Your task to perform on an android device: What's on my calendar tomorrow? Image 0: 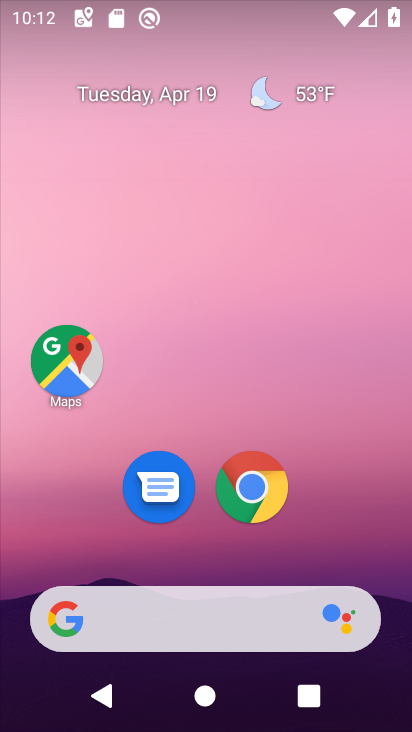
Step 0: drag from (315, 454) to (262, 46)
Your task to perform on an android device: What's on my calendar tomorrow? Image 1: 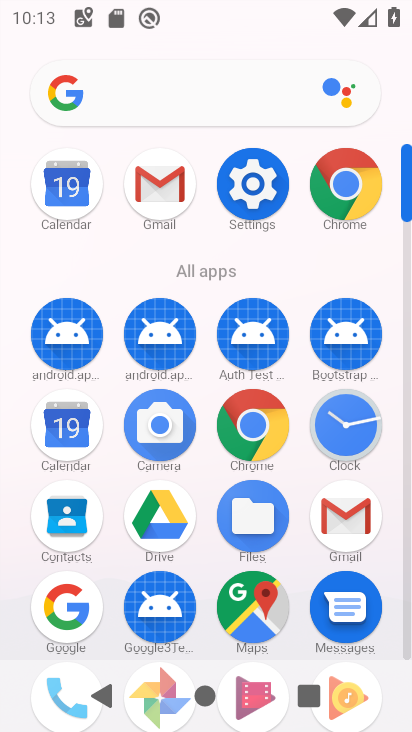
Step 1: drag from (0, 511) to (14, 165)
Your task to perform on an android device: What's on my calendar tomorrow? Image 2: 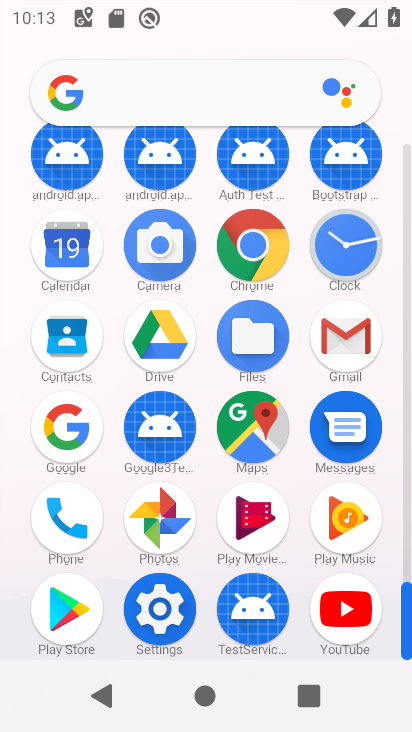
Step 2: click (64, 240)
Your task to perform on an android device: What's on my calendar tomorrow? Image 3: 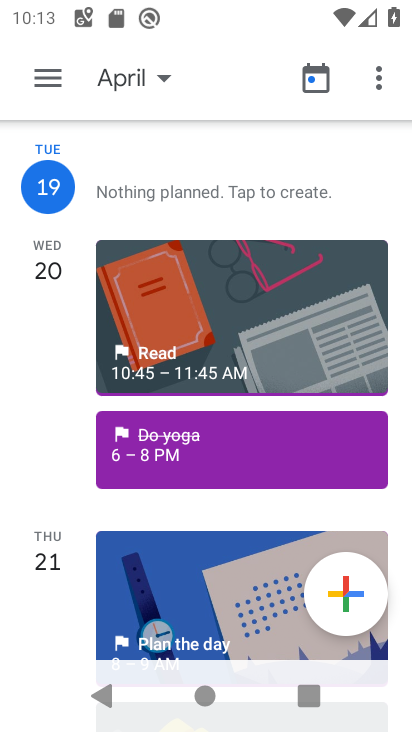
Step 3: click (45, 79)
Your task to perform on an android device: What's on my calendar tomorrow? Image 4: 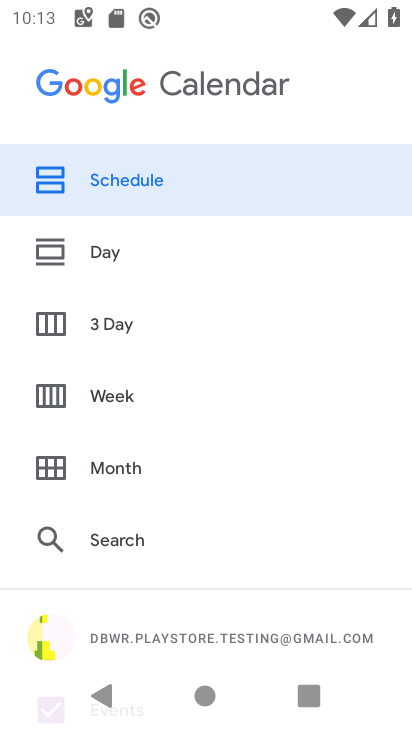
Step 4: click (109, 246)
Your task to perform on an android device: What's on my calendar tomorrow? Image 5: 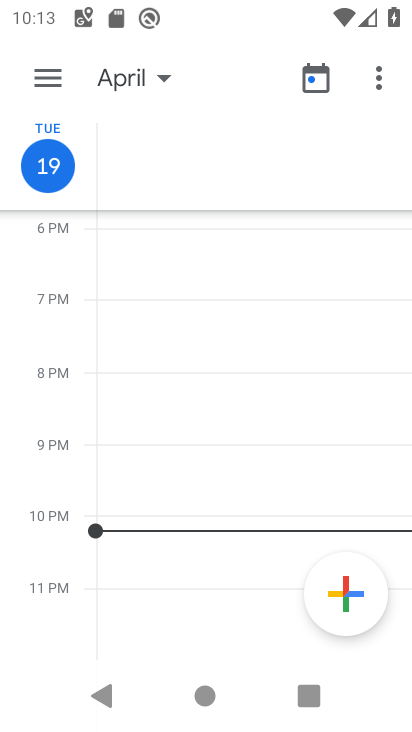
Step 5: task complete